Your task to perform on an android device: Clear the shopping cart on amazon.com. Search for "logitech g903" on amazon.com, select the first entry, add it to the cart, then select checkout. Image 0: 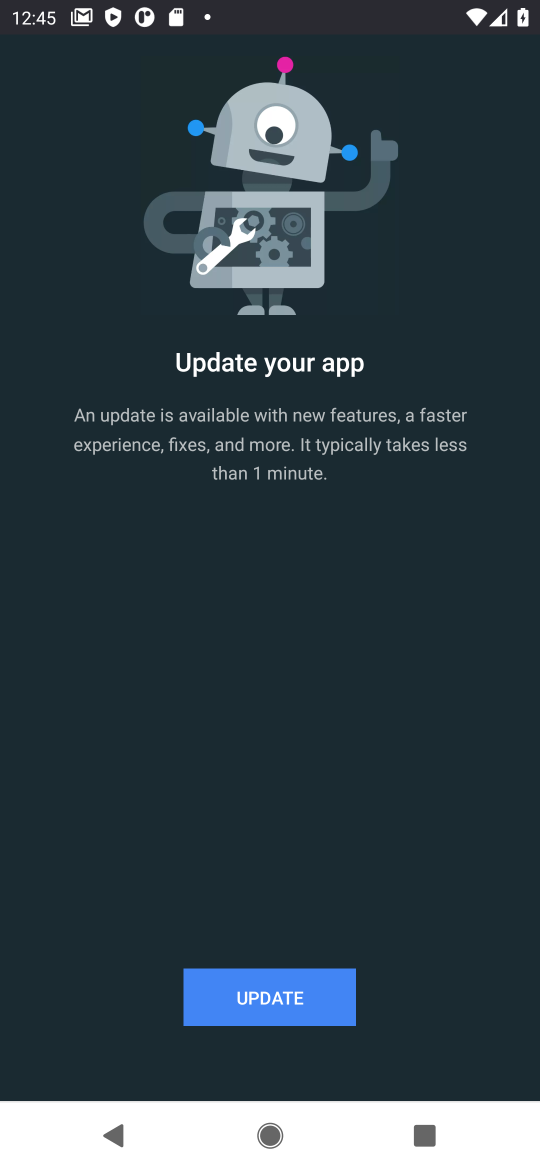
Step 0: task complete